Your task to perform on an android device: add a contact Image 0: 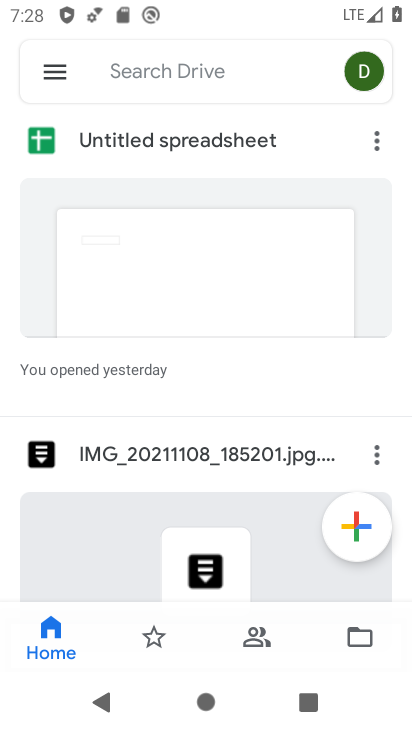
Step 0: press home button
Your task to perform on an android device: add a contact Image 1: 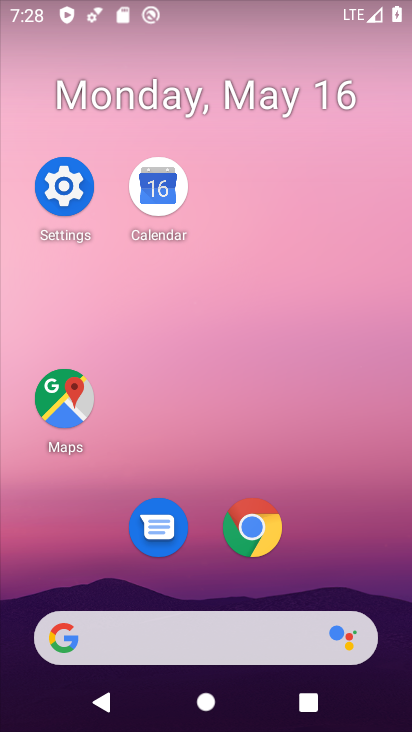
Step 1: drag from (270, 583) to (234, 150)
Your task to perform on an android device: add a contact Image 2: 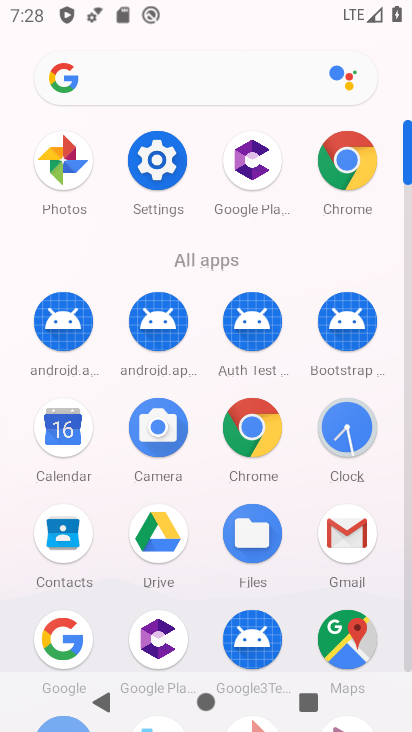
Step 2: drag from (63, 533) to (223, 181)
Your task to perform on an android device: add a contact Image 3: 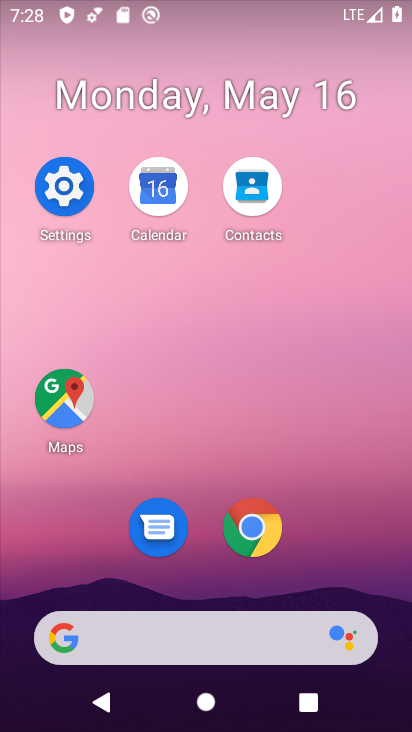
Step 3: click (245, 214)
Your task to perform on an android device: add a contact Image 4: 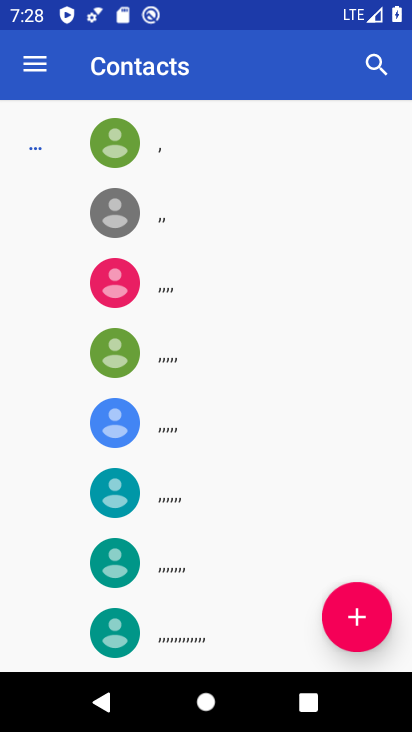
Step 4: click (358, 611)
Your task to perform on an android device: add a contact Image 5: 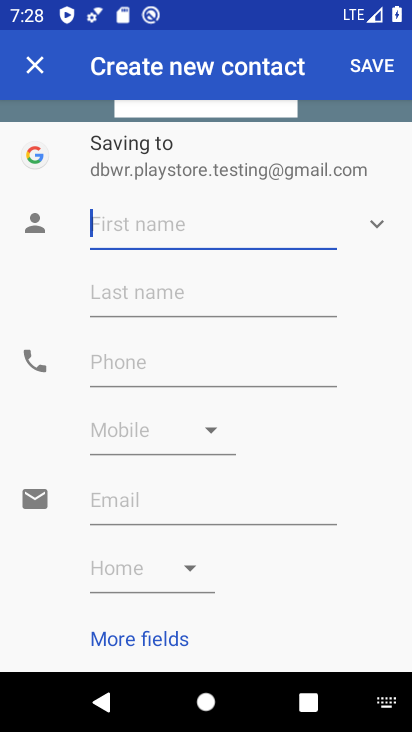
Step 5: type "pets"
Your task to perform on an android device: add a contact Image 6: 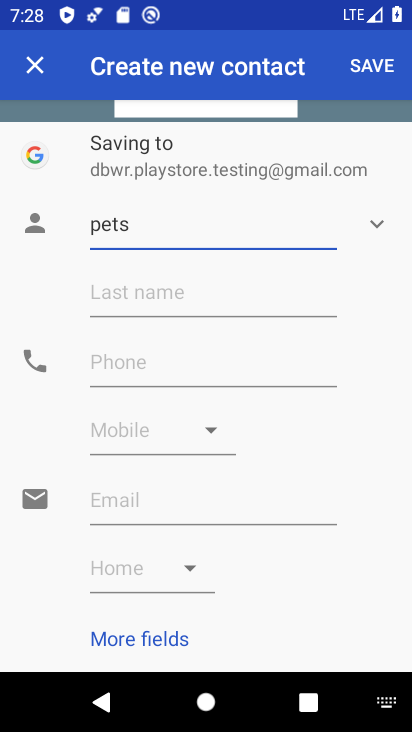
Step 6: click (194, 359)
Your task to perform on an android device: add a contact Image 7: 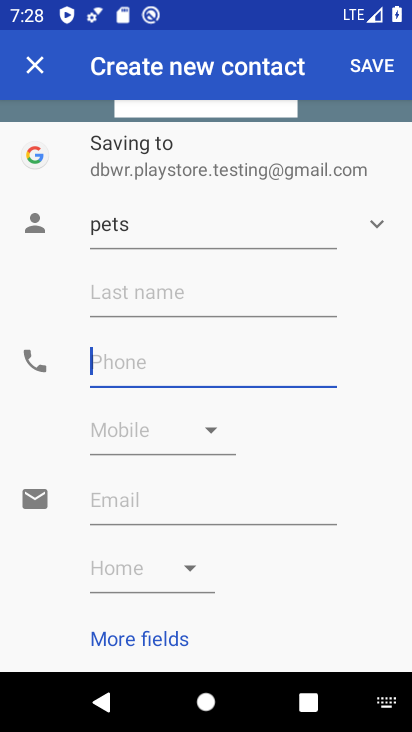
Step 7: type "8897778878"
Your task to perform on an android device: add a contact Image 8: 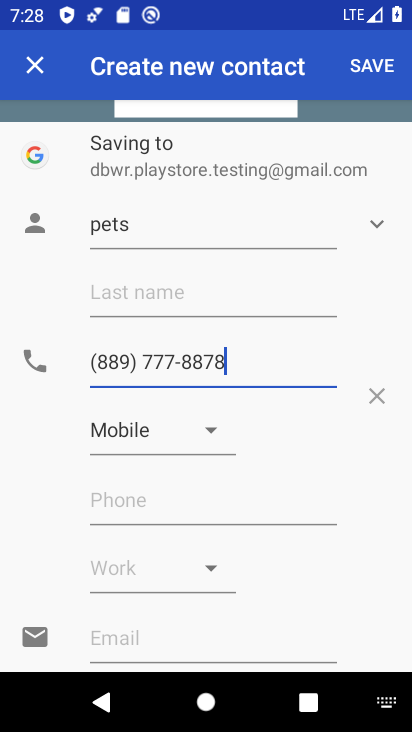
Step 8: click (382, 60)
Your task to perform on an android device: add a contact Image 9: 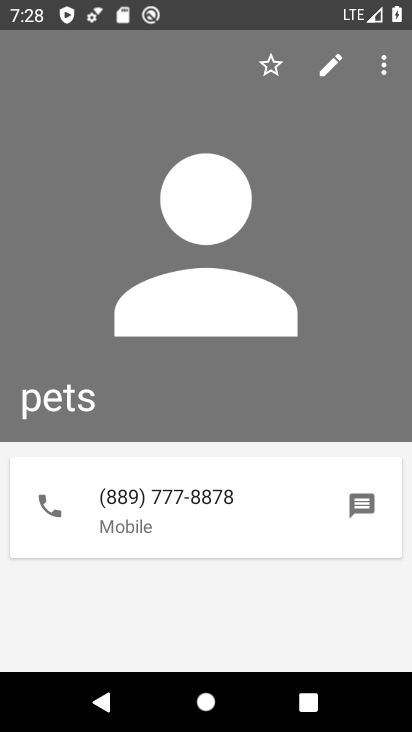
Step 9: task complete